Your task to perform on an android device: Show me productivity apps on the Play Store Image 0: 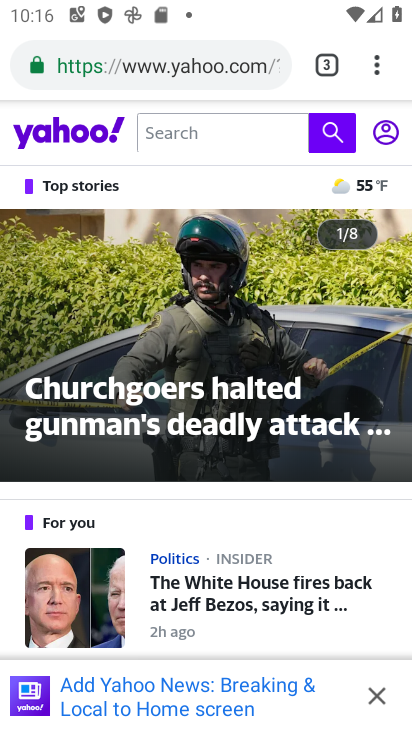
Step 0: press home button
Your task to perform on an android device: Show me productivity apps on the Play Store Image 1: 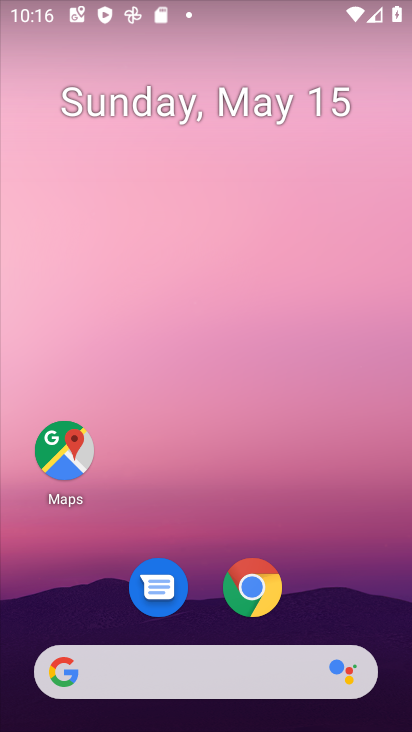
Step 1: drag from (387, 579) to (294, 125)
Your task to perform on an android device: Show me productivity apps on the Play Store Image 2: 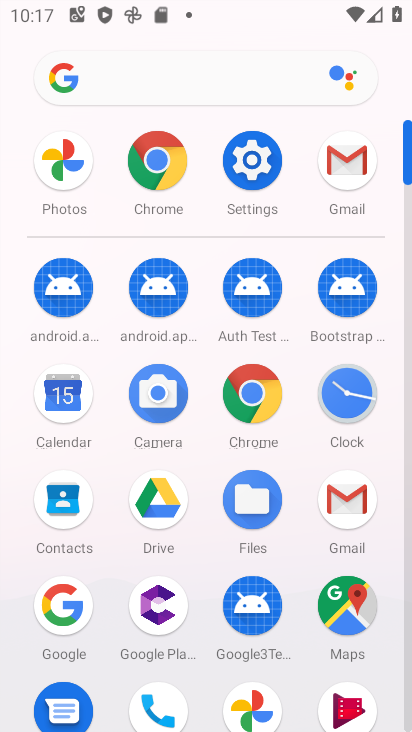
Step 2: drag from (209, 651) to (202, 359)
Your task to perform on an android device: Show me productivity apps on the Play Store Image 3: 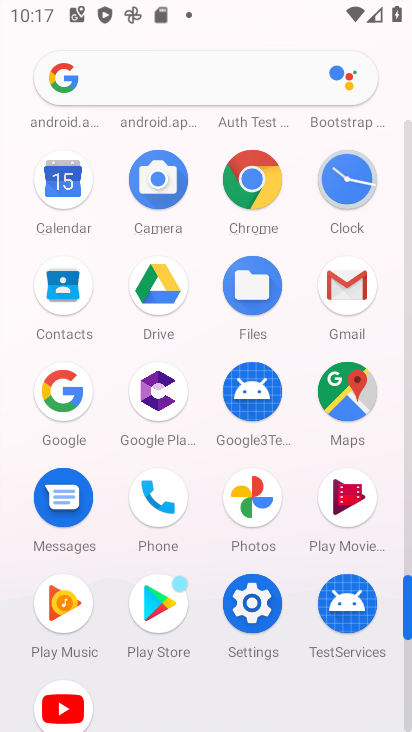
Step 3: click (141, 621)
Your task to perform on an android device: Show me productivity apps on the Play Store Image 4: 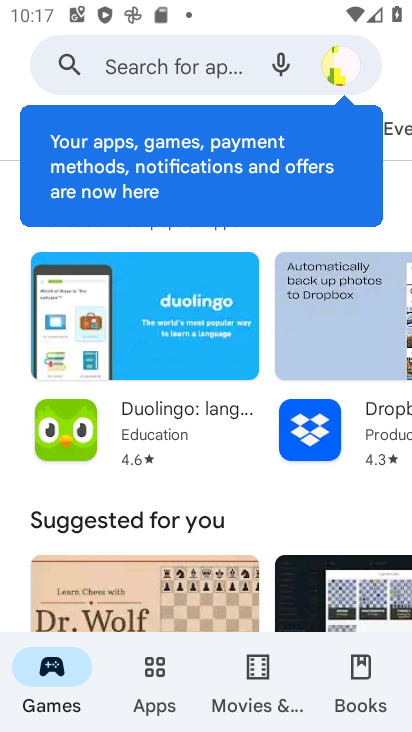
Step 4: task complete